Your task to perform on an android device: move an email to a new category in the gmail app Image 0: 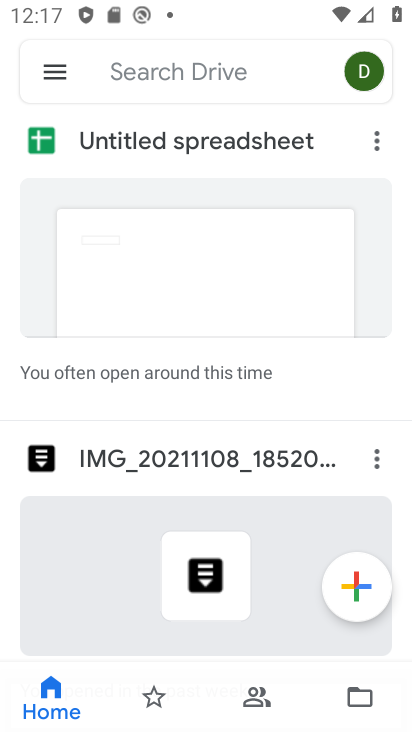
Step 0: press home button
Your task to perform on an android device: move an email to a new category in the gmail app Image 1: 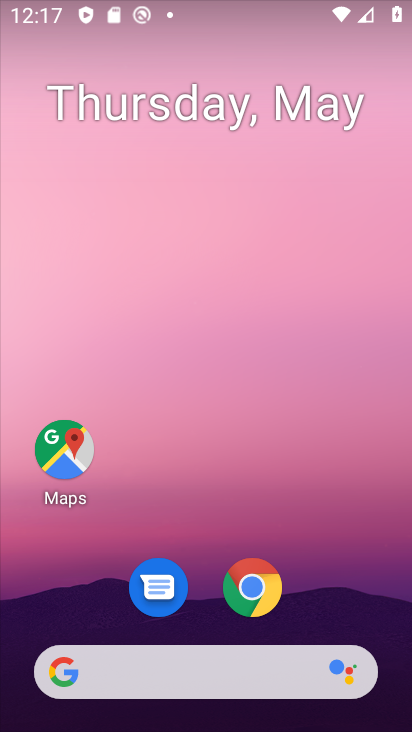
Step 1: drag from (219, 665) to (259, 143)
Your task to perform on an android device: move an email to a new category in the gmail app Image 2: 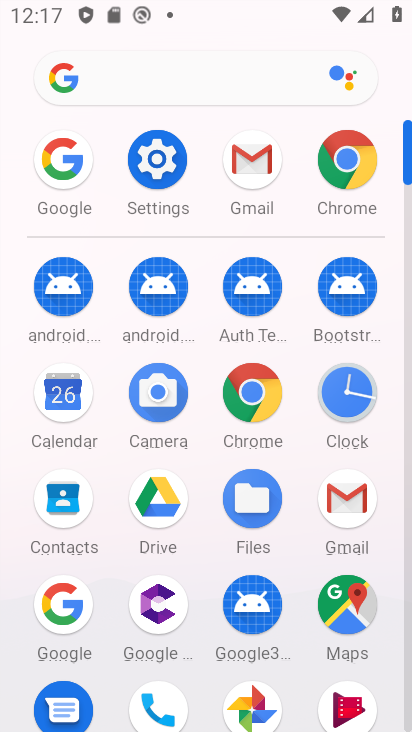
Step 2: click (354, 567)
Your task to perform on an android device: move an email to a new category in the gmail app Image 3: 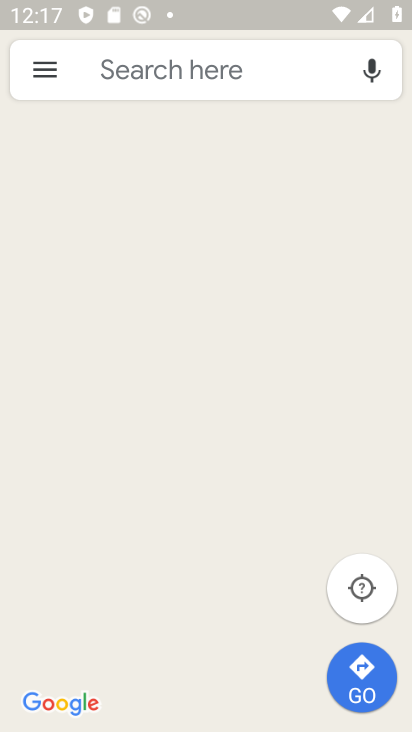
Step 3: task complete